Your task to perform on an android device: show emergency info Image 0: 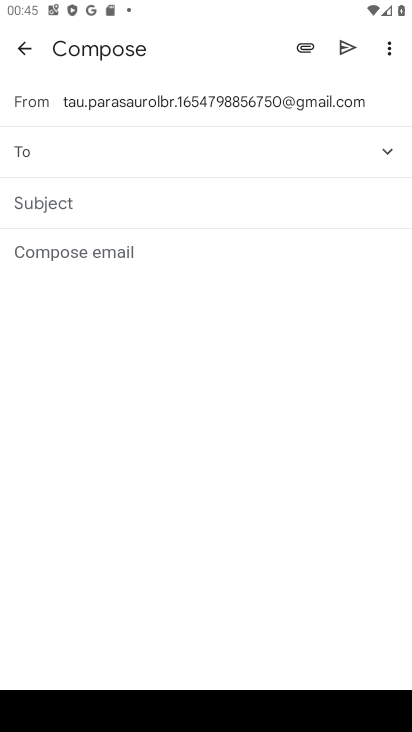
Step 0: drag from (247, 633) to (216, 110)
Your task to perform on an android device: show emergency info Image 1: 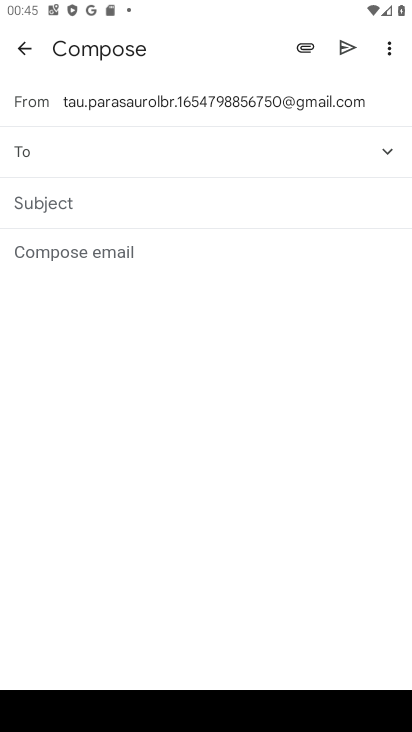
Step 1: press home button
Your task to perform on an android device: show emergency info Image 2: 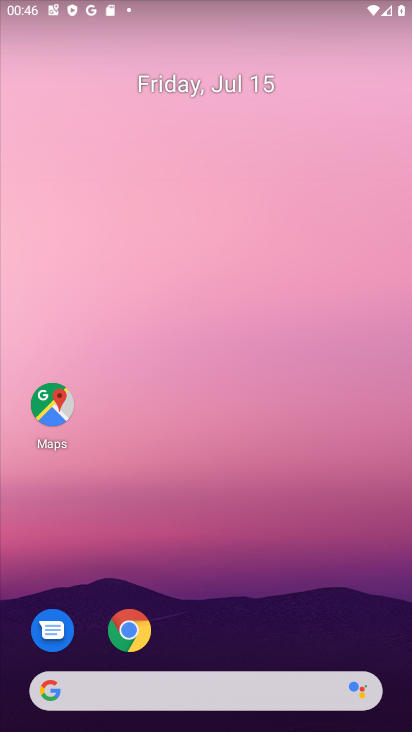
Step 2: drag from (264, 632) to (284, 196)
Your task to perform on an android device: show emergency info Image 3: 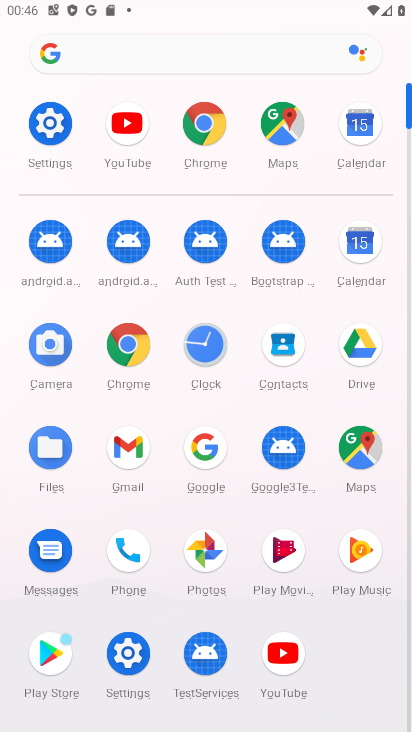
Step 3: click (61, 145)
Your task to perform on an android device: show emergency info Image 4: 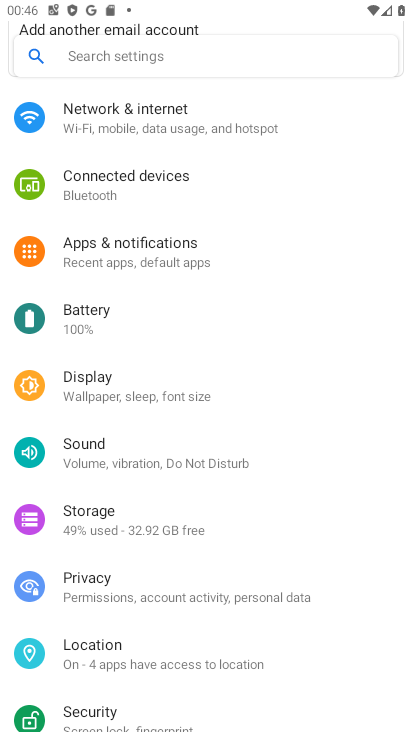
Step 4: drag from (118, 629) to (138, 280)
Your task to perform on an android device: show emergency info Image 5: 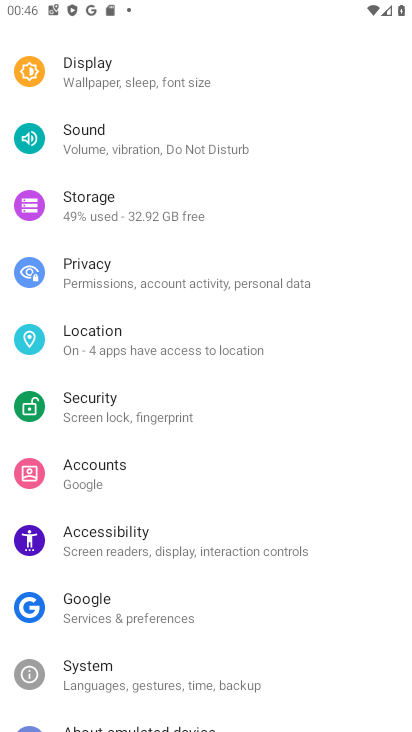
Step 5: drag from (143, 627) to (194, 308)
Your task to perform on an android device: show emergency info Image 6: 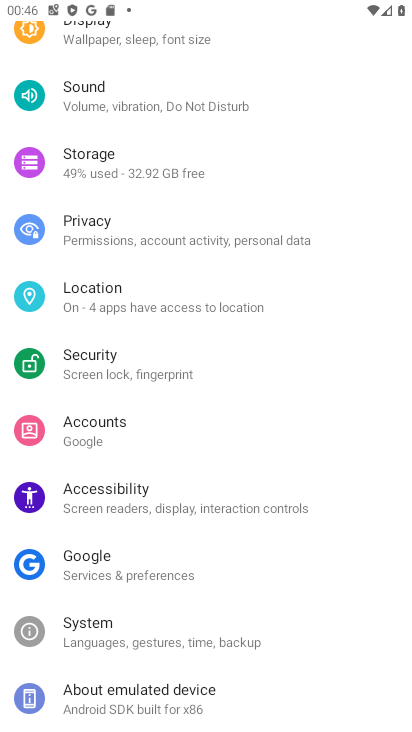
Step 6: click (140, 679)
Your task to perform on an android device: show emergency info Image 7: 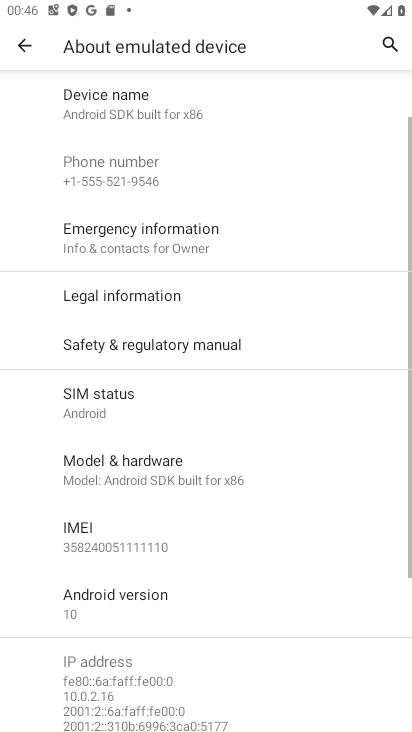
Step 7: click (110, 266)
Your task to perform on an android device: show emergency info Image 8: 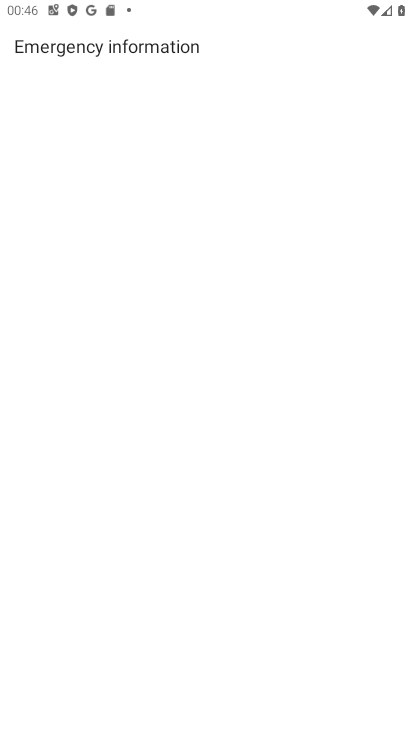
Step 8: task complete